Your task to perform on an android device: toggle sleep mode Image 0: 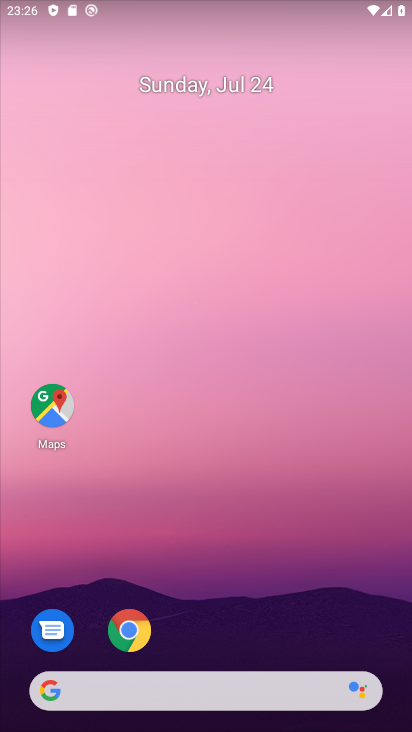
Step 0: drag from (258, 611) to (325, 24)
Your task to perform on an android device: toggle sleep mode Image 1: 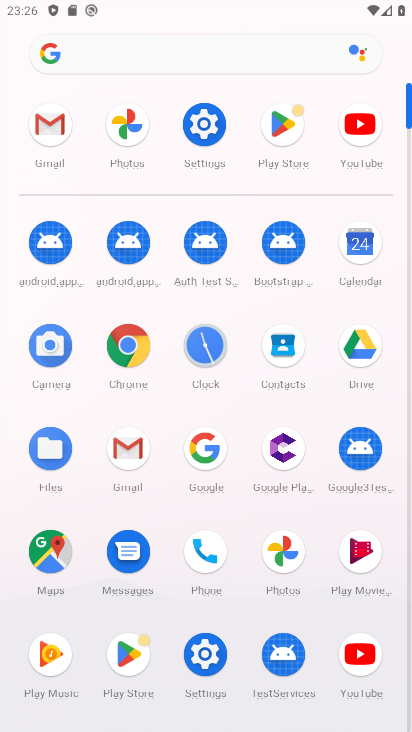
Step 1: click (206, 124)
Your task to perform on an android device: toggle sleep mode Image 2: 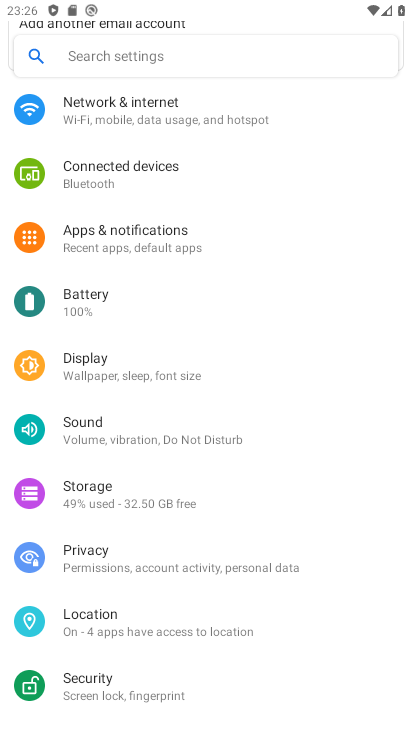
Step 2: click (146, 370)
Your task to perform on an android device: toggle sleep mode Image 3: 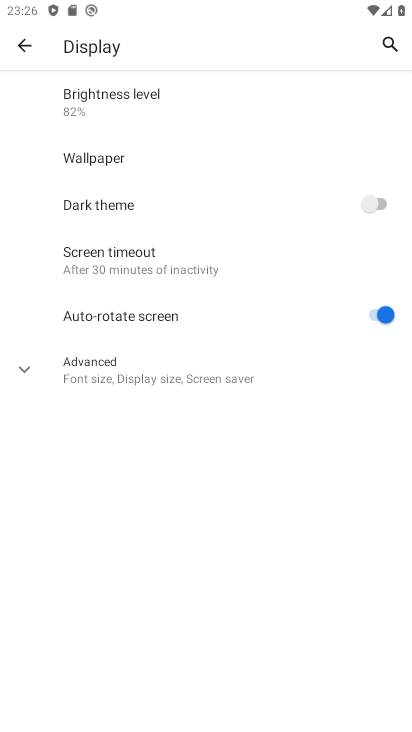
Step 3: click (201, 385)
Your task to perform on an android device: toggle sleep mode Image 4: 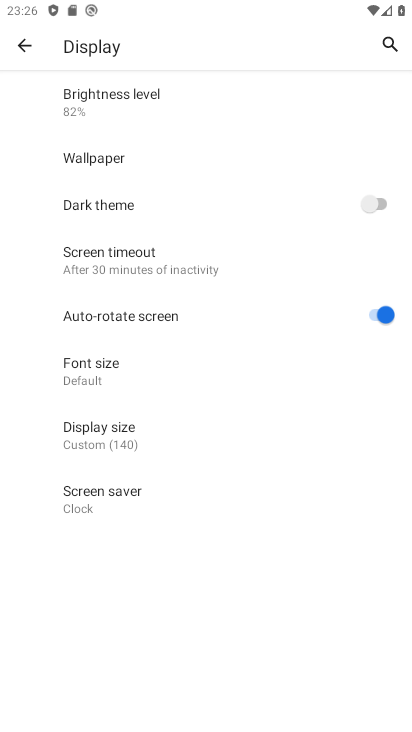
Step 4: task complete